Your task to perform on an android device: turn off airplane mode Image 0: 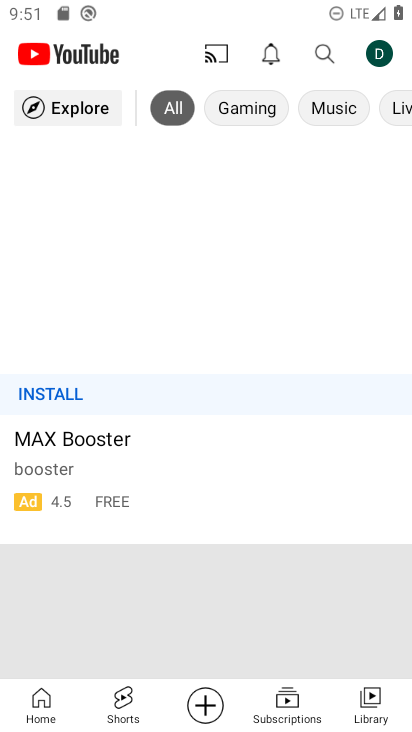
Step 0: drag from (365, 616) to (210, 56)
Your task to perform on an android device: turn off airplane mode Image 1: 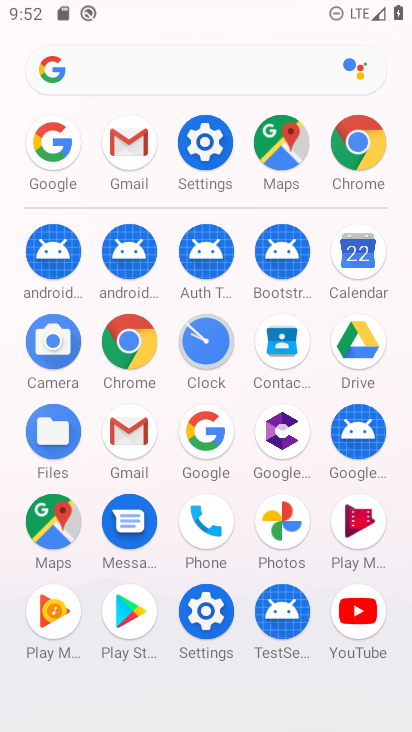
Step 1: task complete